Your task to perform on an android device: Search for Italian restaurants on Maps Image 0: 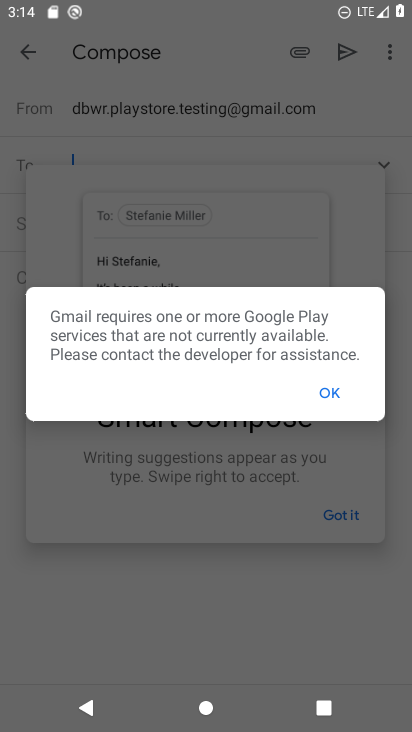
Step 0: press home button
Your task to perform on an android device: Search for Italian restaurants on Maps Image 1: 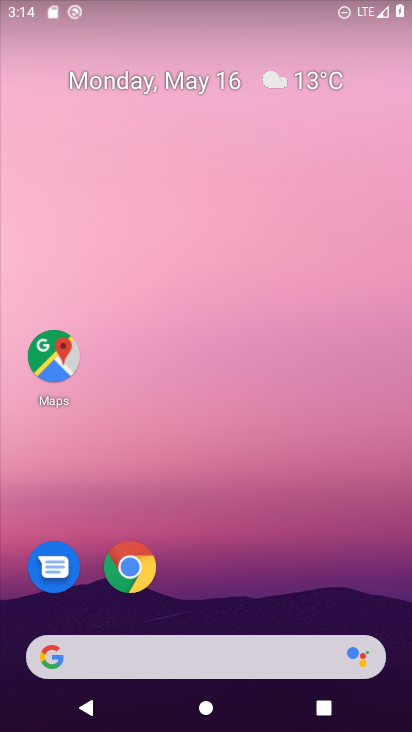
Step 1: click (64, 353)
Your task to perform on an android device: Search for Italian restaurants on Maps Image 2: 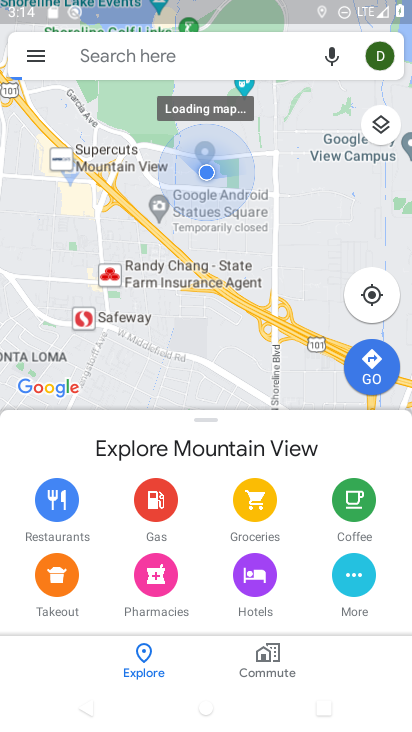
Step 2: click (235, 39)
Your task to perform on an android device: Search for Italian restaurants on Maps Image 3: 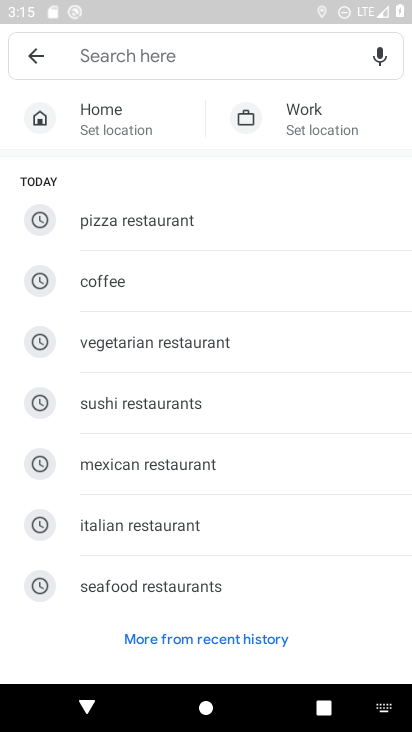
Step 3: click (130, 531)
Your task to perform on an android device: Search for Italian restaurants on Maps Image 4: 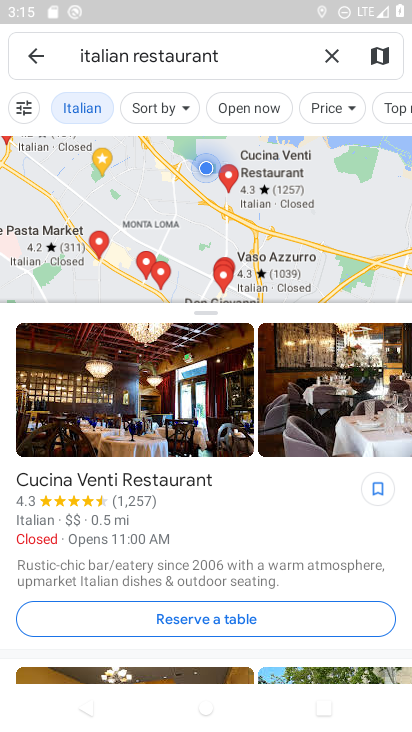
Step 4: task complete